Your task to perform on an android device: Open a new Chrome incognito window Image 0: 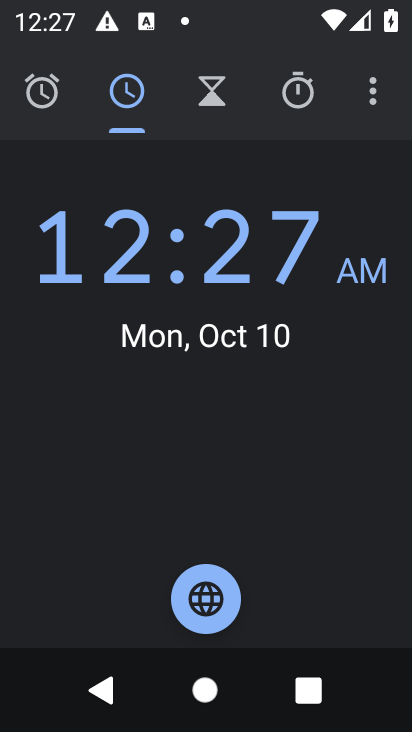
Step 0: press home button
Your task to perform on an android device: Open a new Chrome incognito window Image 1: 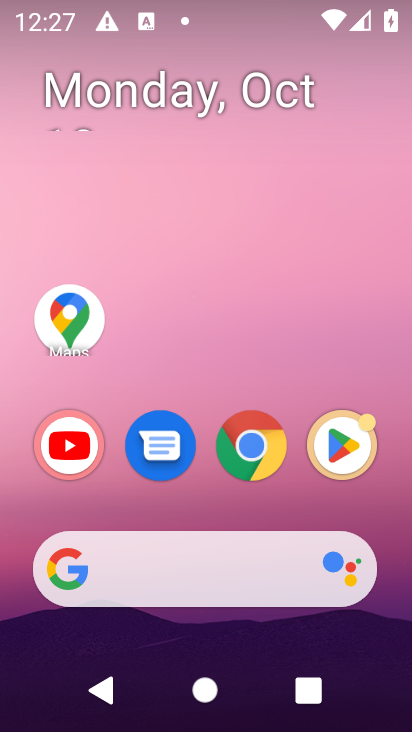
Step 1: click (254, 463)
Your task to perform on an android device: Open a new Chrome incognito window Image 2: 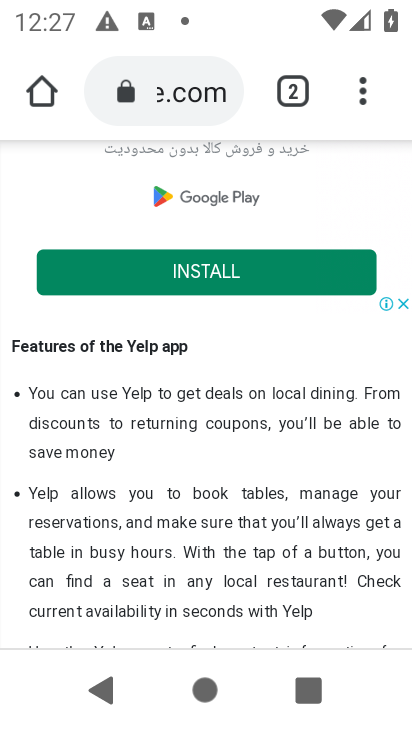
Step 2: click (362, 93)
Your task to perform on an android device: Open a new Chrome incognito window Image 3: 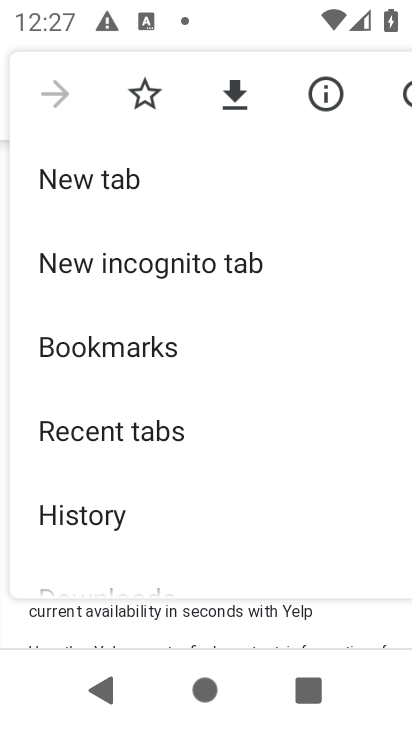
Step 3: click (134, 261)
Your task to perform on an android device: Open a new Chrome incognito window Image 4: 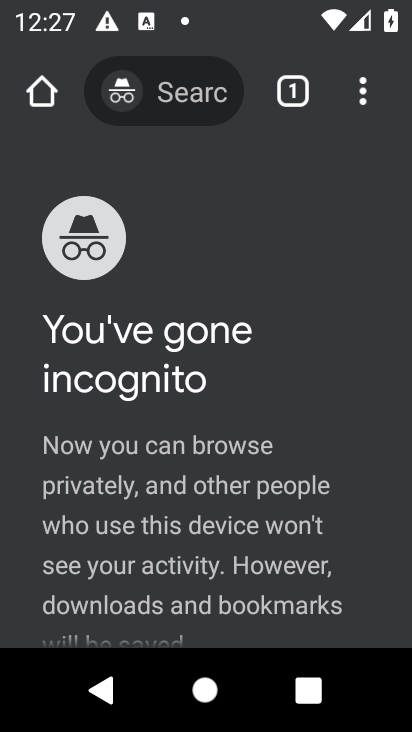
Step 4: task complete